Your task to perform on an android device: turn on priority inbox in the gmail app Image 0: 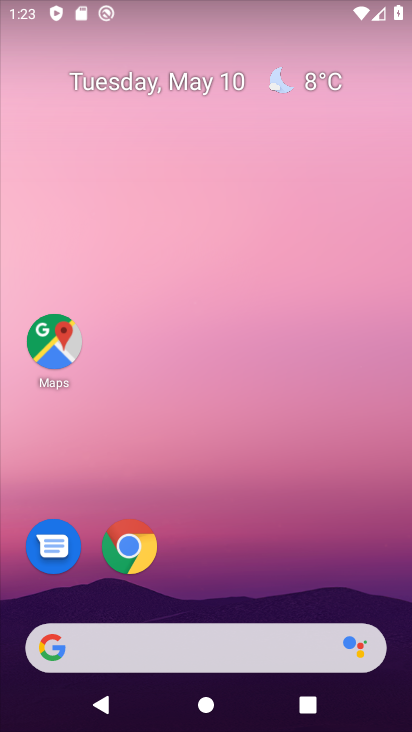
Step 0: drag from (394, 616) to (312, 52)
Your task to perform on an android device: turn on priority inbox in the gmail app Image 1: 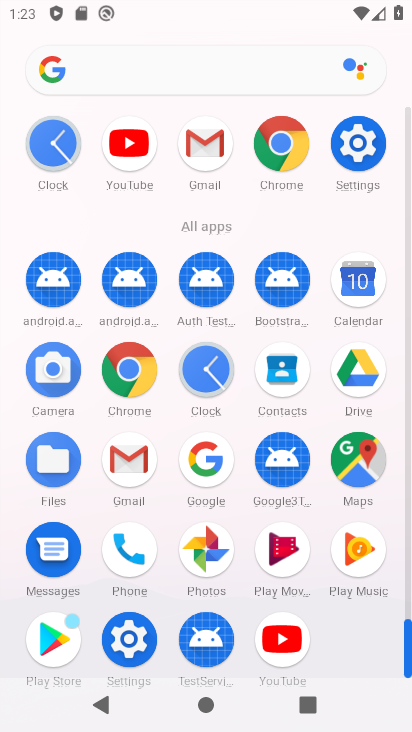
Step 1: click (126, 456)
Your task to perform on an android device: turn on priority inbox in the gmail app Image 2: 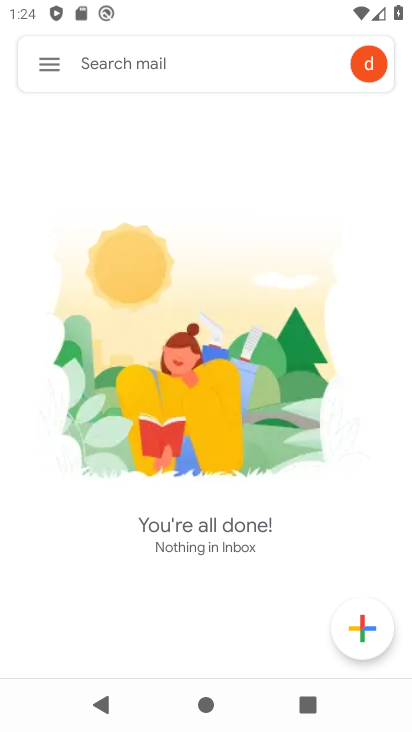
Step 2: click (50, 61)
Your task to perform on an android device: turn on priority inbox in the gmail app Image 3: 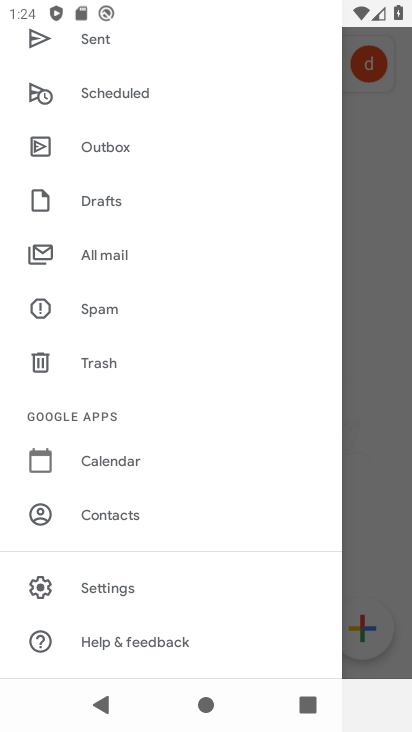
Step 3: click (119, 578)
Your task to perform on an android device: turn on priority inbox in the gmail app Image 4: 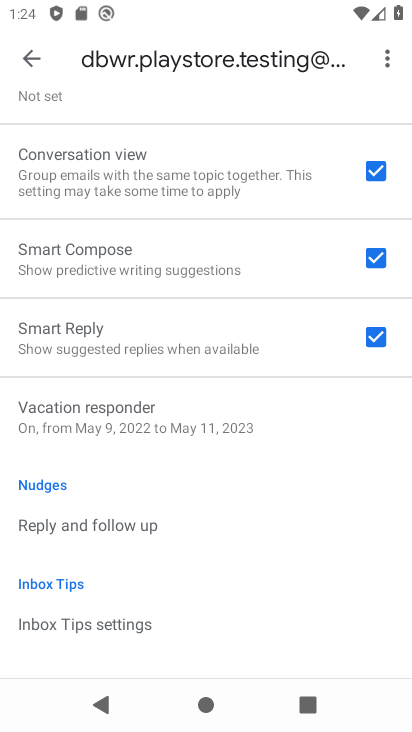
Step 4: drag from (272, 340) to (235, 599)
Your task to perform on an android device: turn on priority inbox in the gmail app Image 5: 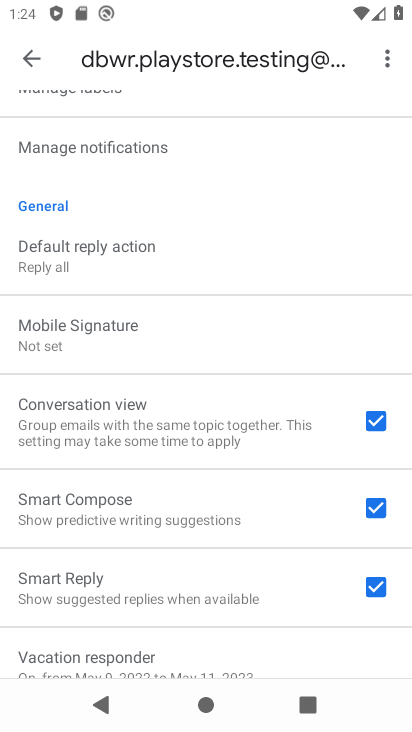
Step 5: drag from (297, 217) to (278, 548)
Your task to perform on an android device: turn on priority inbox in the gmail app Image 6: 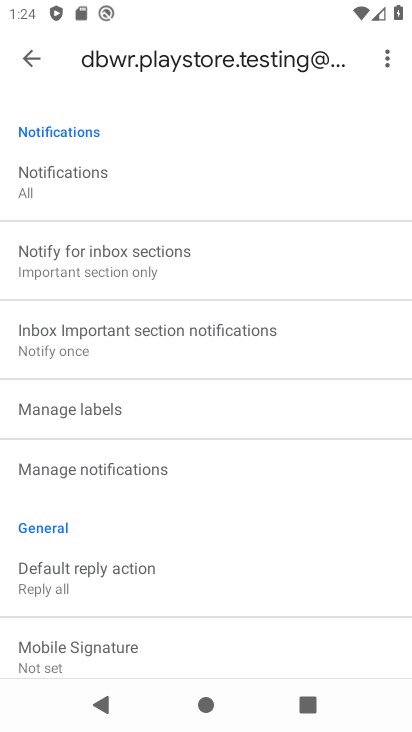
Step 6: drag from (246, 301) to (222, 575)
Your task to perform on an android device: turn on priority inbox in the gmail app Image 7: 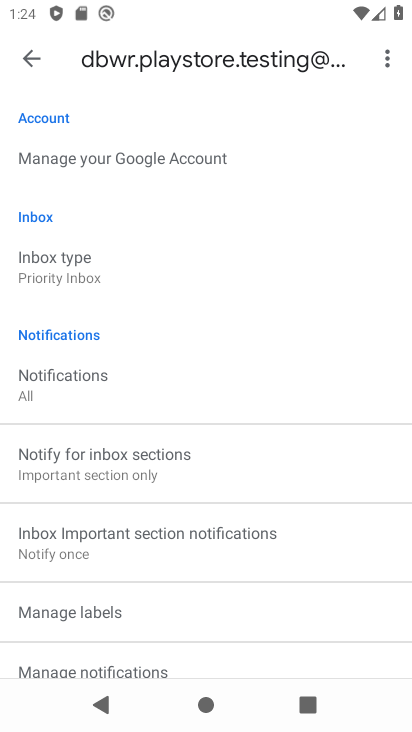
Step 7: click (43, 254)
Your task to perform on an android device: turn on priority inbox in the gmail app Image 8: 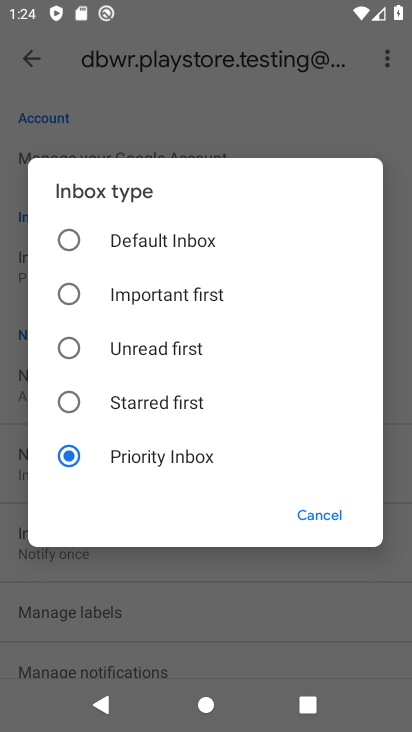
Step 8: task complete